Your task to perform on an android device: turn off translation in the chrome app Image 0: 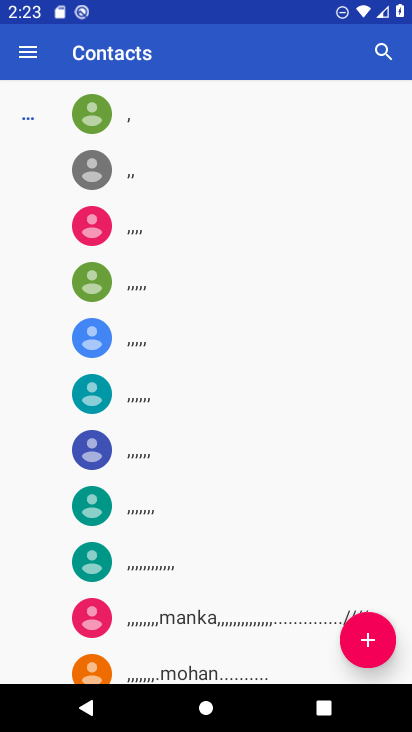
Step 0: press home button
Your task to perform on an android device: turn off translation in the chrome app Image 1: 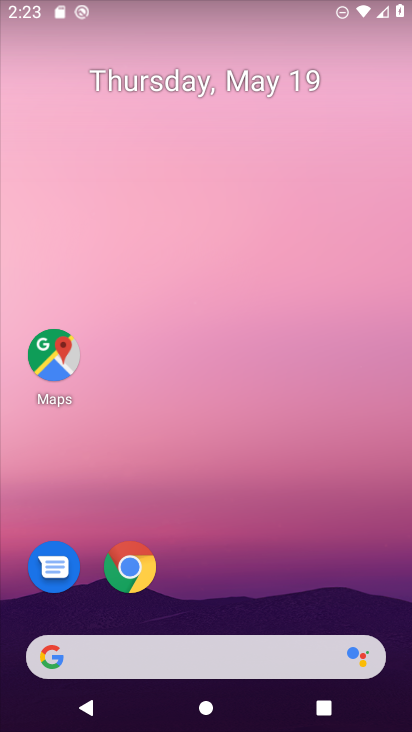
Step 1: click (139, 595)
Your task to perform on an android device: turn off translation in the chrome app Image 2: 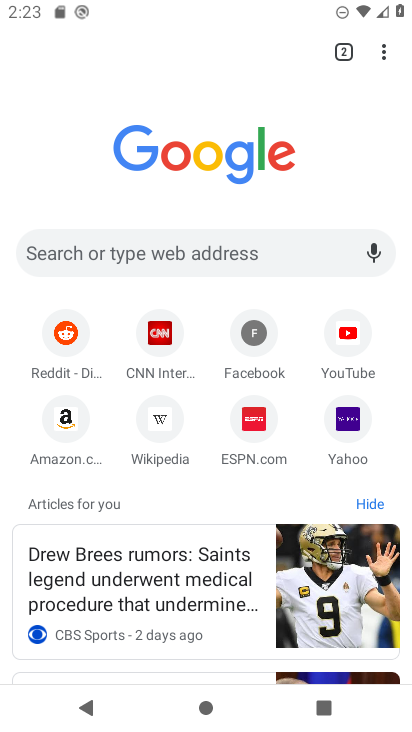
Step 2: click (385, 43)
Your task to perform on an android device: turn off translation in the chrome app Image 3: 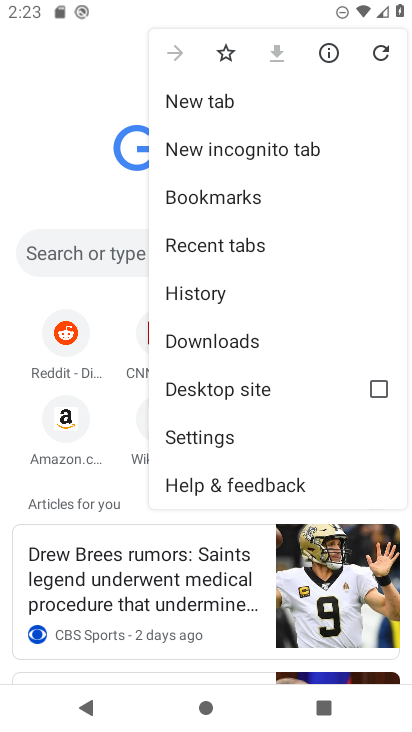
Step 3: click (238, 433)
Your task to perform on an android device: turn off translation in the chrome app Image 4: 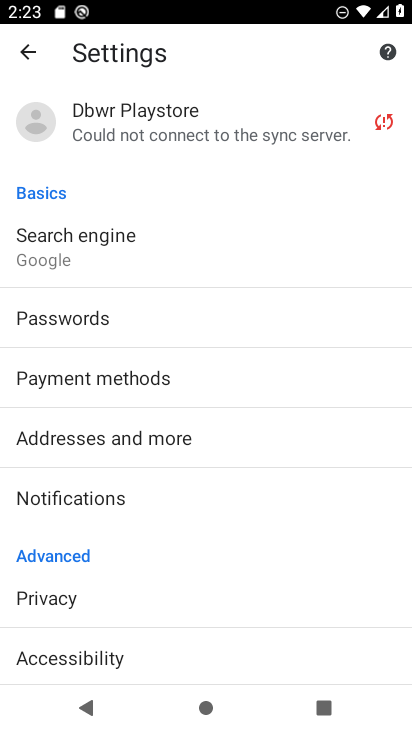
Step 4: drag from (240, 485) to (242, 308)
Your task to perform on an android device: turn off translation in the chrome app Image 5: 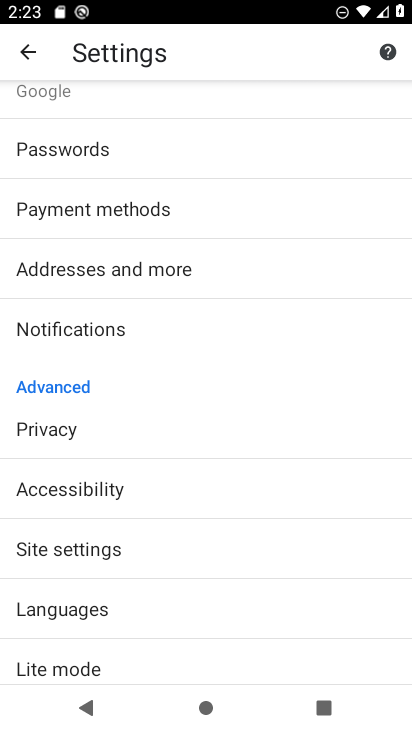
Step 5: click (165, 605)
Your task to perform on an android device: turn off translation in the chrome app Image 6: 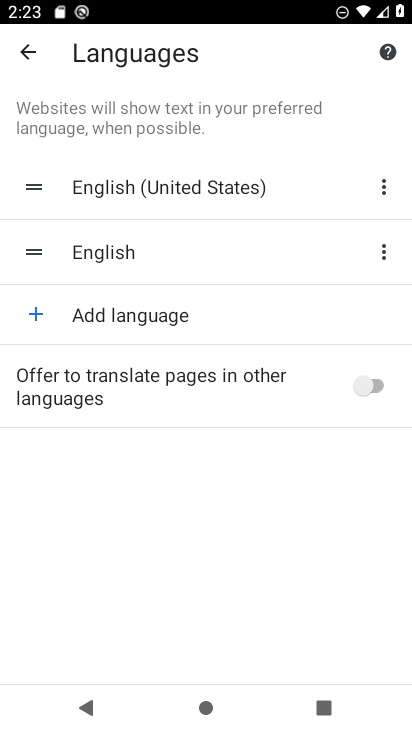
Step 6: task complete